Your task to perform on an android device: uninstall "Google Calendar" Image 0: 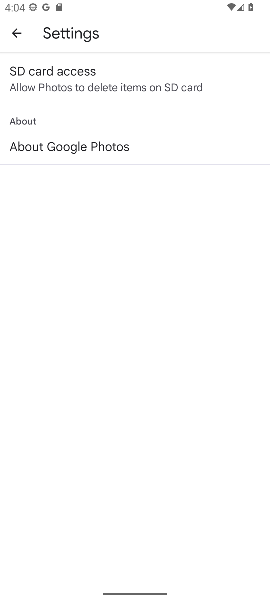
Step 0: press home button
Your task to perform on an android device: uninstall "Google Calendar" Image 1: 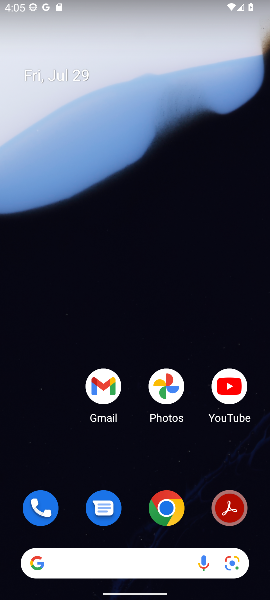
Step 1: drag from (217, 400) to (106, 43)
Your task to perform on an android device: uninstall "Google Calendar" Image 2: 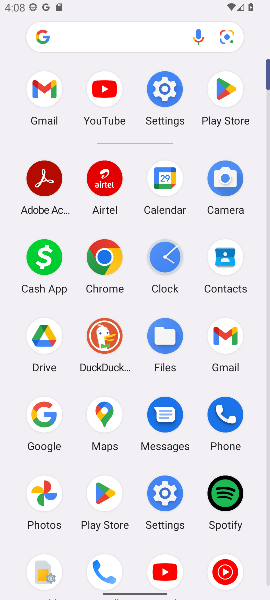
Step 2: click (236, 83)
Your task to perform on an android device: uninstall "Google Calendar" Image 3: 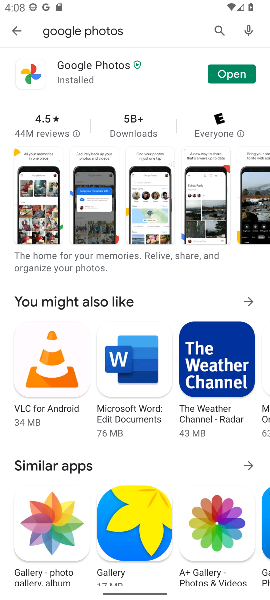
Step 3: press back button
Your task to perform on an android device: uninstall "Google Calendar" Image 4: 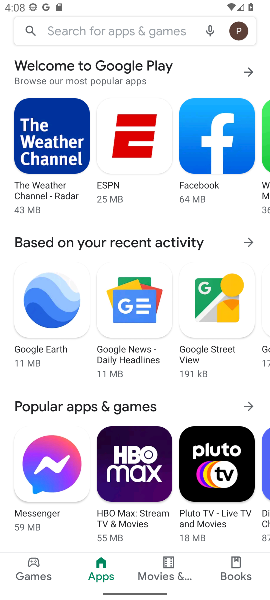
Step 4: click (72, 31)
Your task to perform on an android device: uninstall "Google Calendar" Image 5: 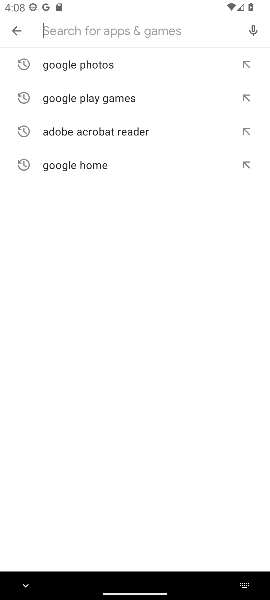
Step 5: type "Google Calendar"
Your task to perform on an android device: uninstall "Google Calendar" Image 6: 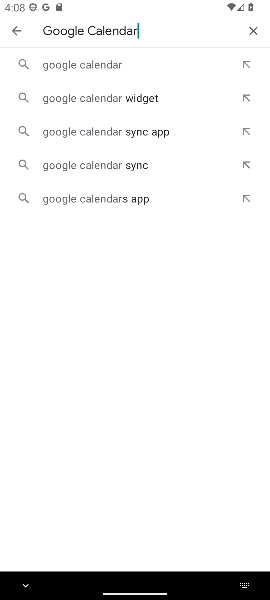
Step 6: click (76, 61)
Your task to perform on an android device: uninstall "Google Calendar" Image 7: 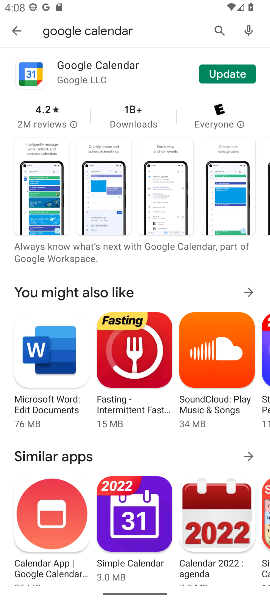
Step 7: task complete